Your task to perform on an android device: Is it going to rain this weekend? Image 0: 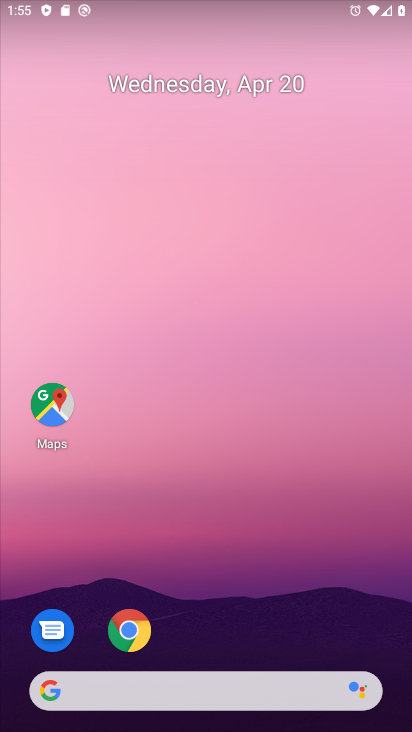
Step 0: click (136, 627)
Your task to perform on an android device: Is it going to rain this weekend? Image 1: 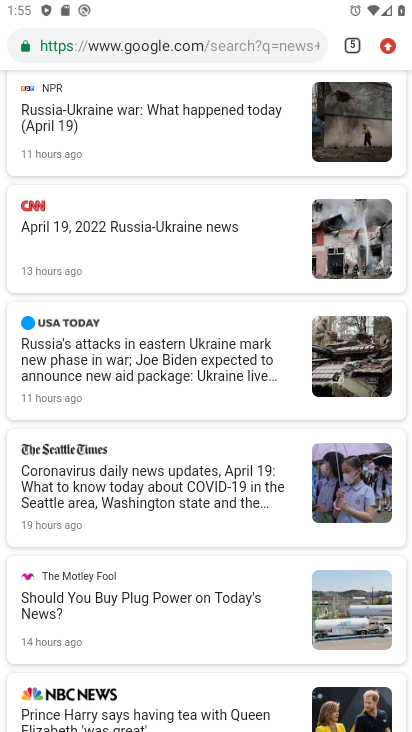
Step 1: click (352, 42)
Your task to perform on an android device: Is it going to rain this weekend? Image 2: 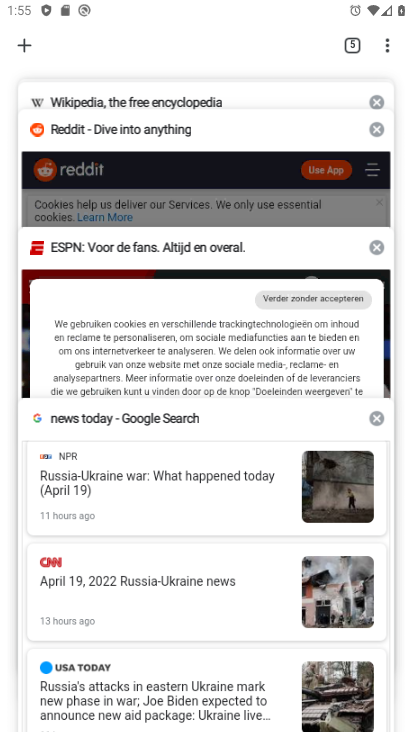
Step 2: click (32, 45)
Your task to perform on an android device: Is it going to rain this weekend? Image 3: 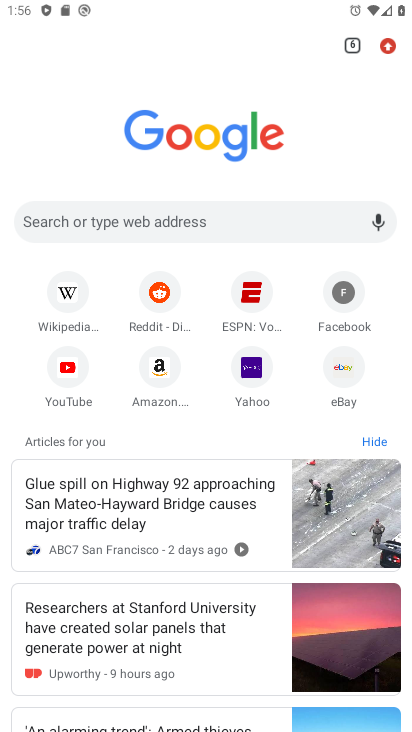
Step 3: click (134, 217)
Your task to perform on an android device: Is it going to rain this weekend? Image 4: 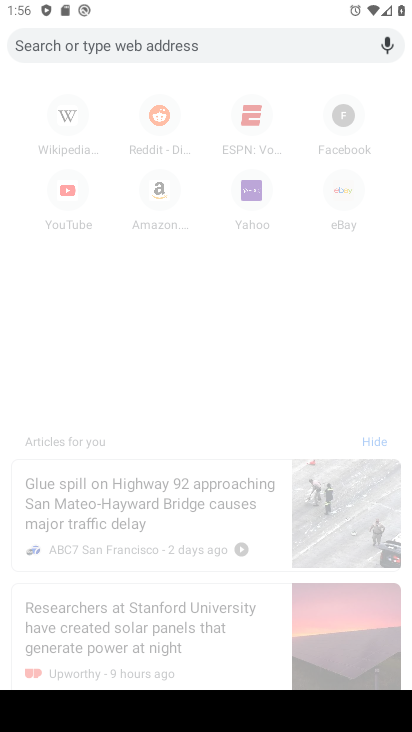
Step 4: type "is it going t"
Your task to perform on an android device: Is it going to rain this weekend? Image 5: 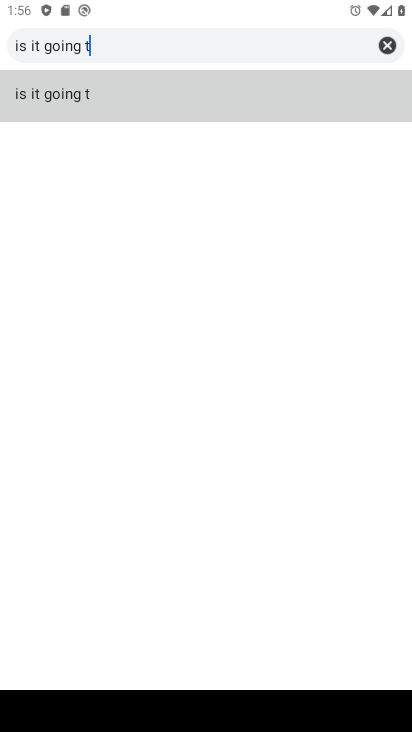
Step 5: click (99, 43)
Your task to perform on an android device: Is it going to rain this weekend? Image 6: 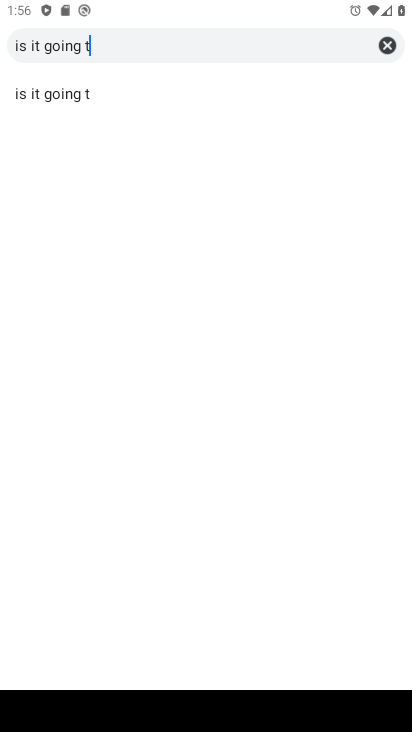
Step 6: type "o rain this weekend"
Your task to perform on an android device: Is it going to rain this weekend? Image 7: 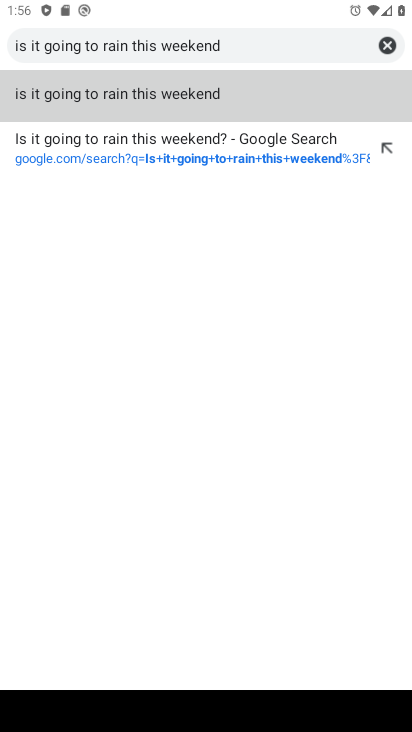
Step 7: click (53, 149)
Your task to perform on an android device: Is it going to rain this weekend? Image 8: 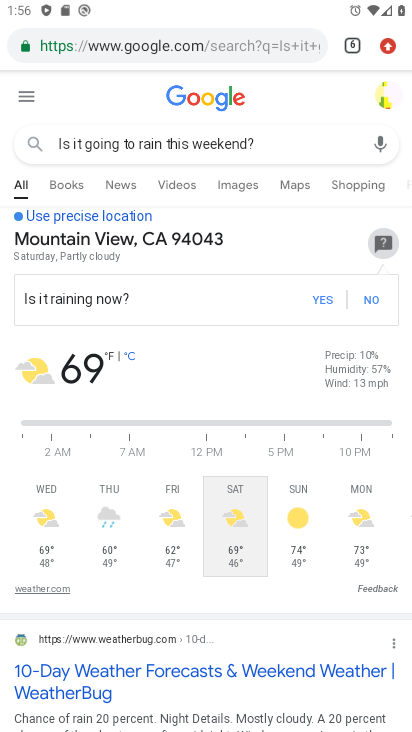
Step 8: click (369, 298)
Your task to perform on an android device: Is it going to rain this weekend? Image 9: 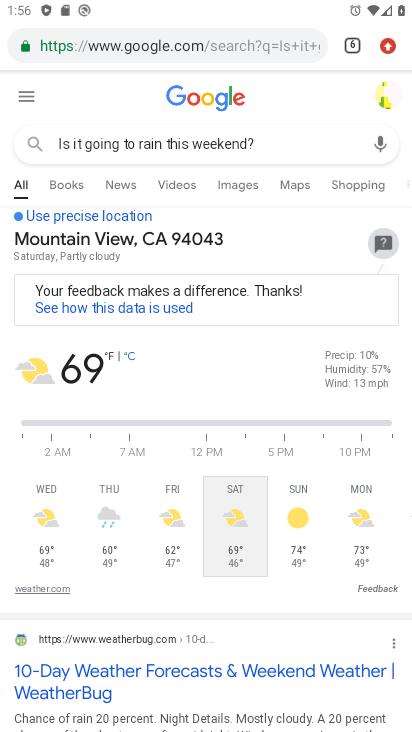
Step 9: task complete